Your task to perform on an android device: open app "Google Pay: Save, Pay, Manage" (install if not already installed) Image 0: 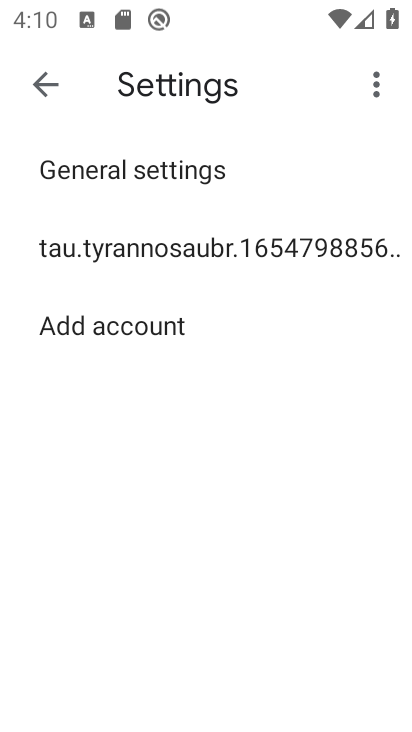
Step 0: press home button
Your task to perform on an android device: open app "Google Pay: Save, Pay, Manage" (install if not already installed) Image 1: 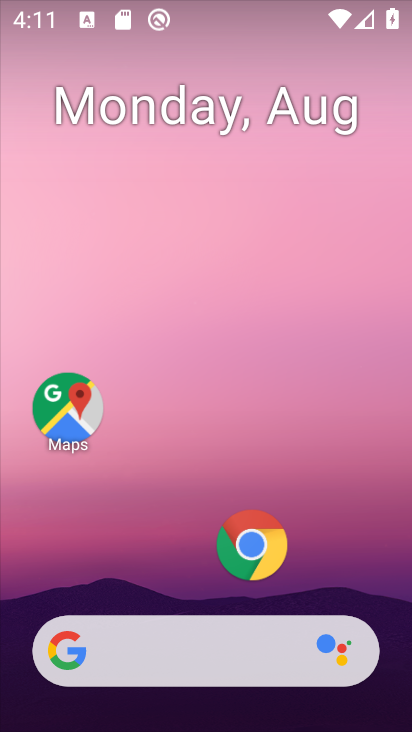
Step 1: drag from (213, 443) to (231, 113)
Your task to perform on an android device: open app "Google Pay: Save, Pay, Manage" (install if not already installed) Image 2: 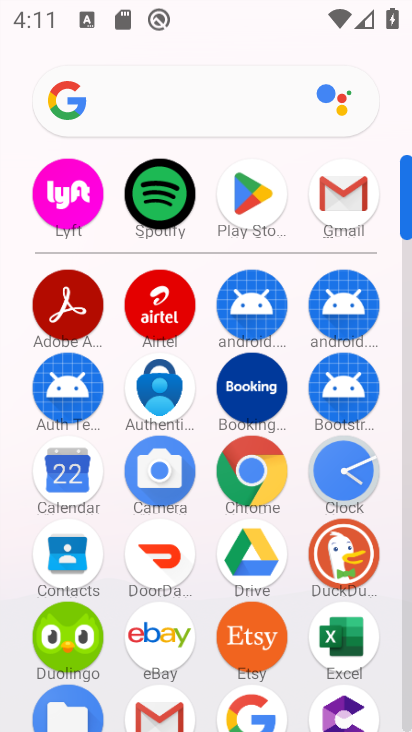
Step 2: click (247, 197)
Your task to perform on an android device: open app "Google Pay: Save, Pay, Manage" (install if not already installed) Image 3: 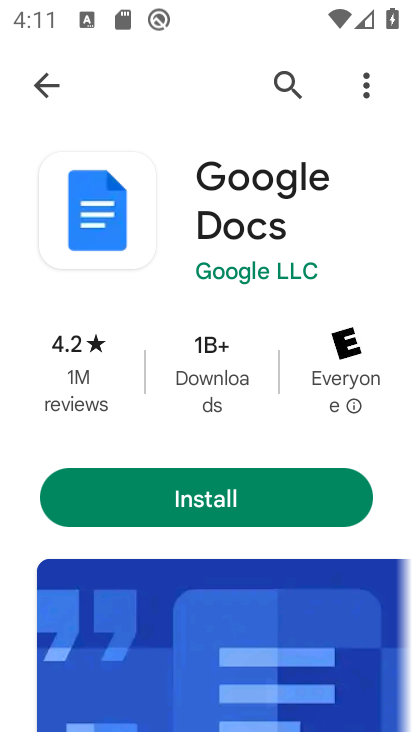
Step 3: click (283, 90)
Your task to perform on an android device: open app "Google Pay: Save, Pay, Manage" (install if not already installed) Image 4: 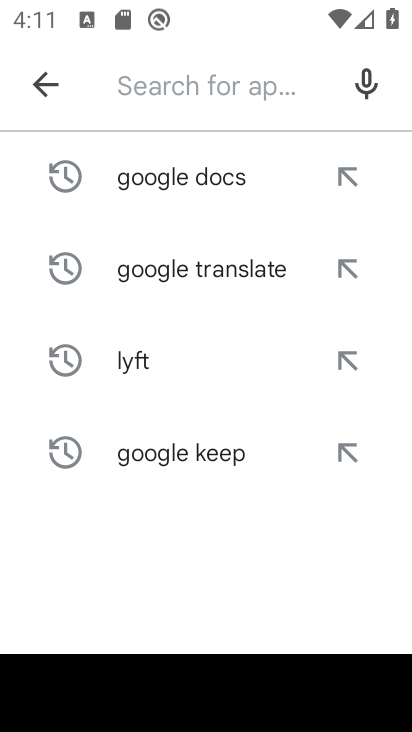
Step 4: click (161, 80)
Your task to perform on an android device: open app "Google Pay: Save, Pay, Manage" (install if not already installed) Image 5: 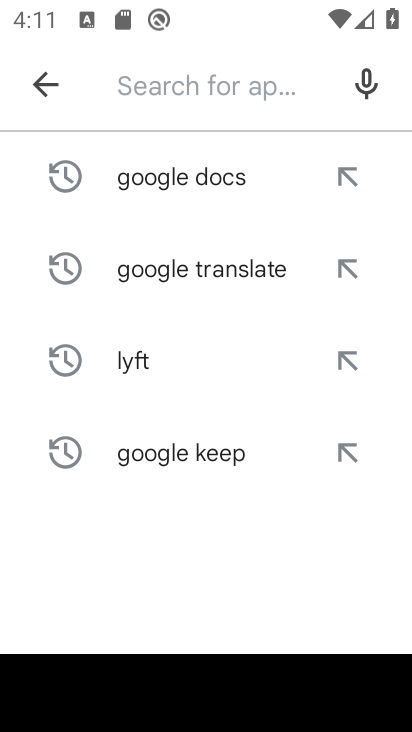
Step 5: type "Google Pay"
Your task to perform on an android device: open app "Google Pay: Save, Pay, Manage" (install if not already installed) Image 6: 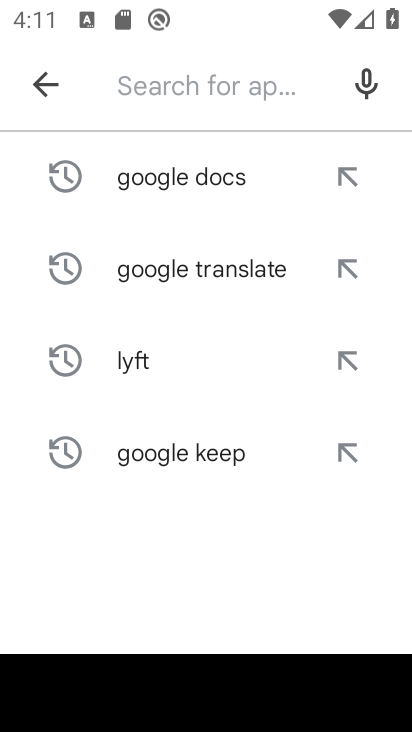
Step 6: click (170, 575)
Your task to perform on an android device: open app "Google Pay: Save, Pay, Manage" (install if not already installed) Image 7: 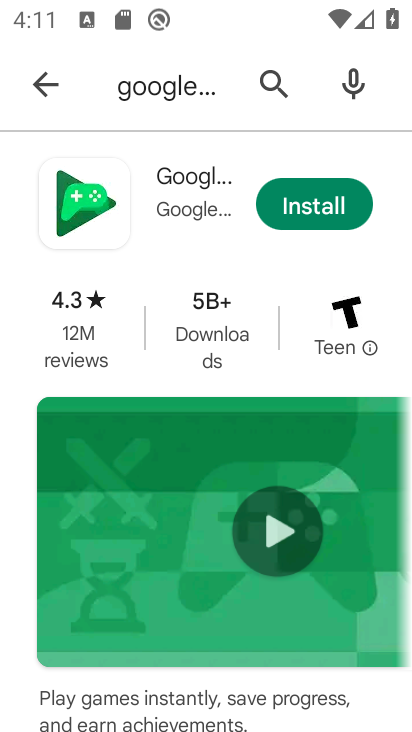
Step 7: click (274, 90)
Your task to perform on an android device: open app "Google Pay: Save, Pay, Manage" (install if not already installed) Image 8: 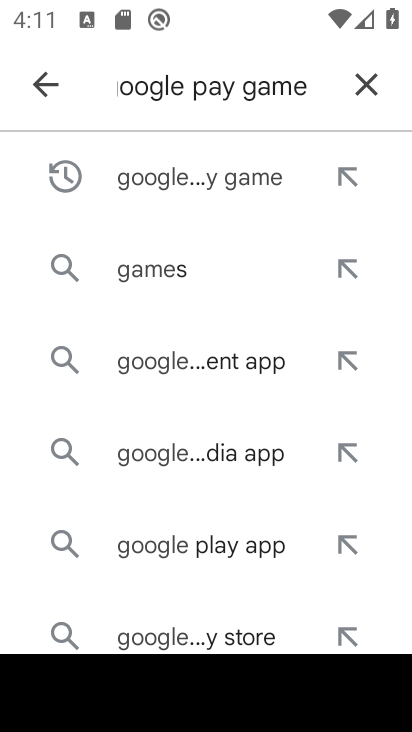
Step 8: click (367, 76)
Your task to perform on an android device: open app "Google Pay: Save, Pay, Manage" (install if not already installed) Image 9: 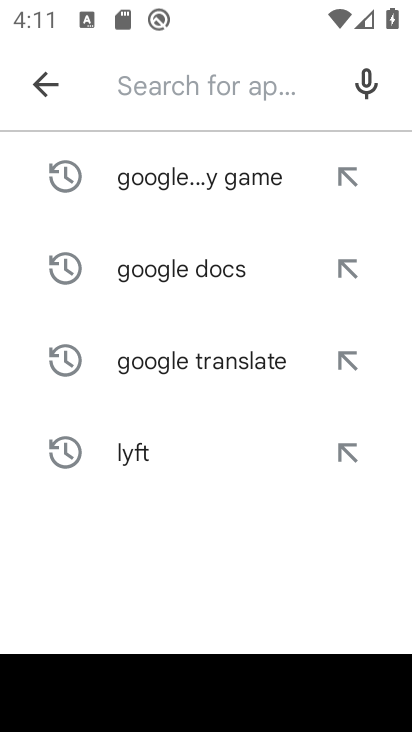
Step 9: type "Google Pay"
Your task to perform on an android device: open app "Google Pay: Save, Pay, Manage" (install if not already installed) Image 10: 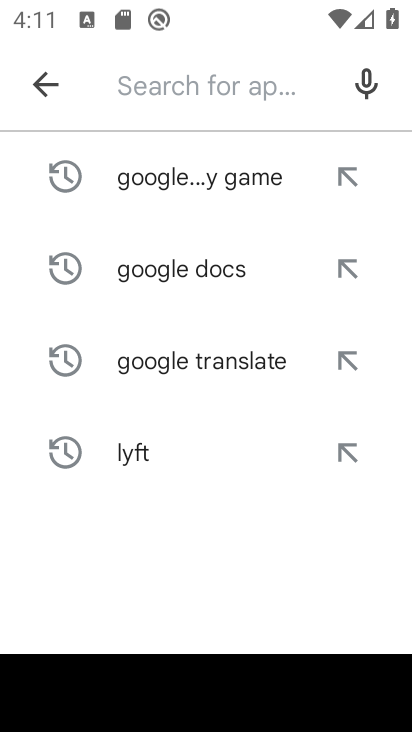
Step 10: click (252, 44)
Your task to perform on an android device: open app "Google Pay: Save, Pay, Manage" (install if not already installed) Image 11: 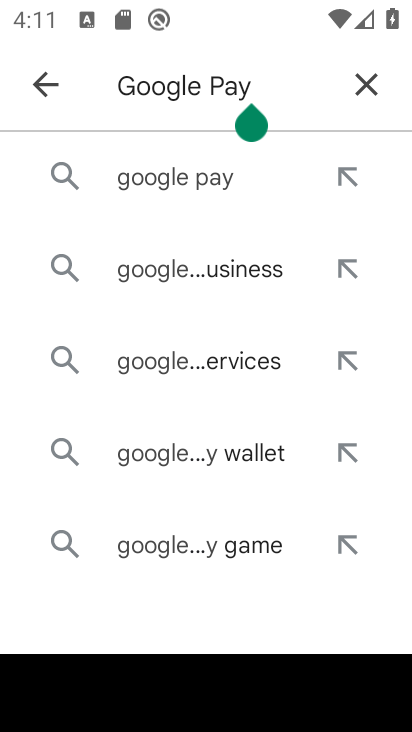
Step 11: click (169, 169)
Your task to perform on an android device: open app "Google Pay: Save, Pay, Manage" (install if not already installed) Image 12: 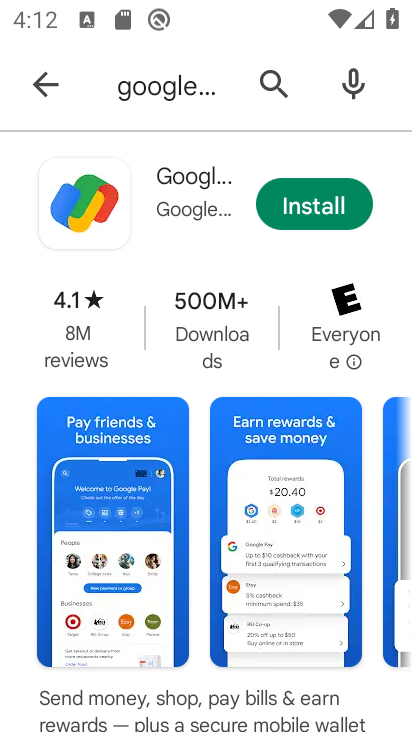
Step 12: click (333, 197)
Your task to perform on an android device: open app "Google Pay: Save, Pay, Manage" (install if not already installed) Image 13: 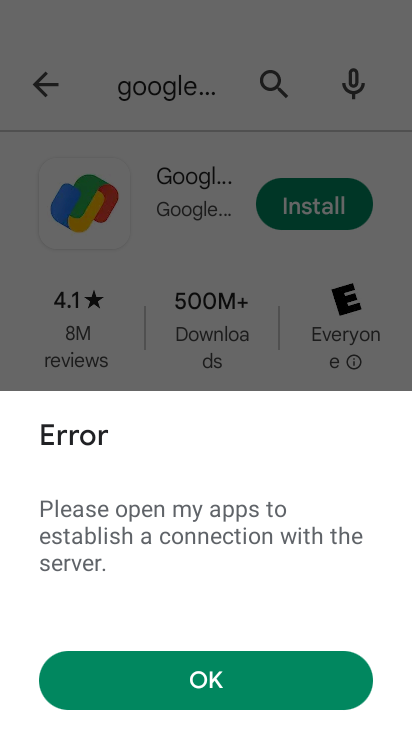
Step 13: task complete